Your task to perform on an android device: allow cookies in the chrome app Image 0: 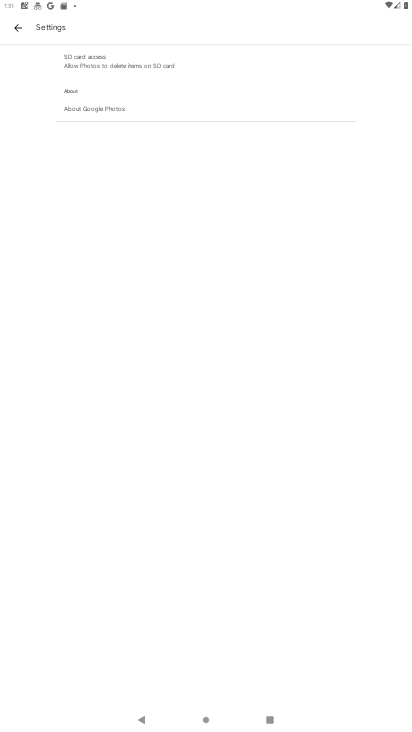
Step 0: press home button
Your task to perform on an android device: allow cookies in the chrome app Image 1: 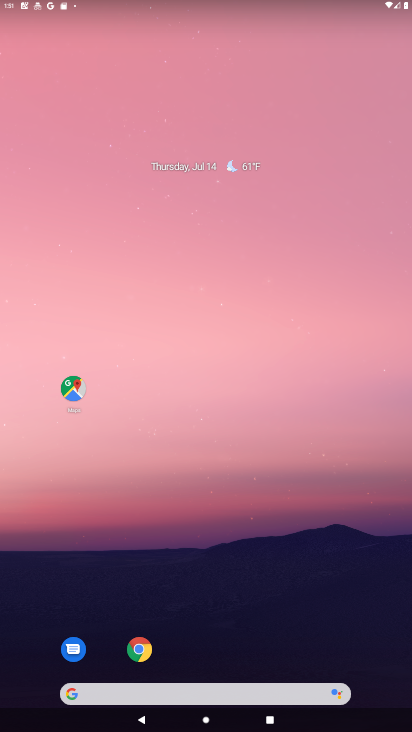
Step 1: drag from (229, 715) to (266, 115)
Your task to perform on an android device: allow cookies in the chrome app Image 2: 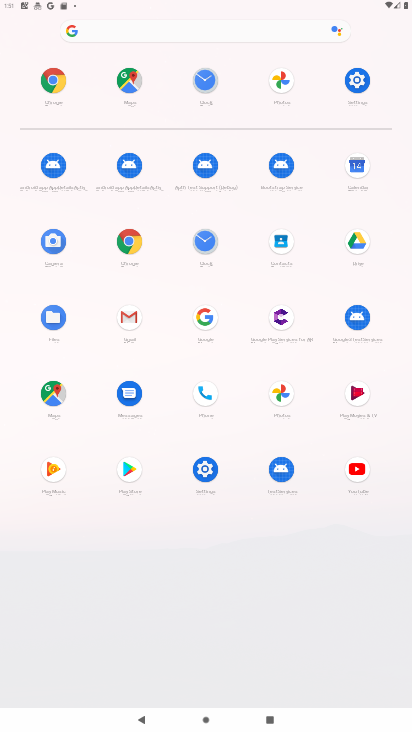
Step 2: click (119, 247)
Your task to perform on an android device: allow cookies in the chrome app Image 3: 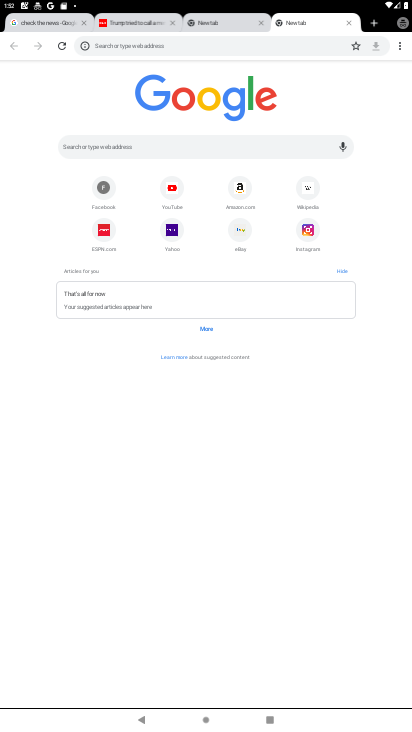
Step 3: drag from (392, 38) to (333, 211)
Your task to perform on an android device: allow cookies in the chrome app Image 4: 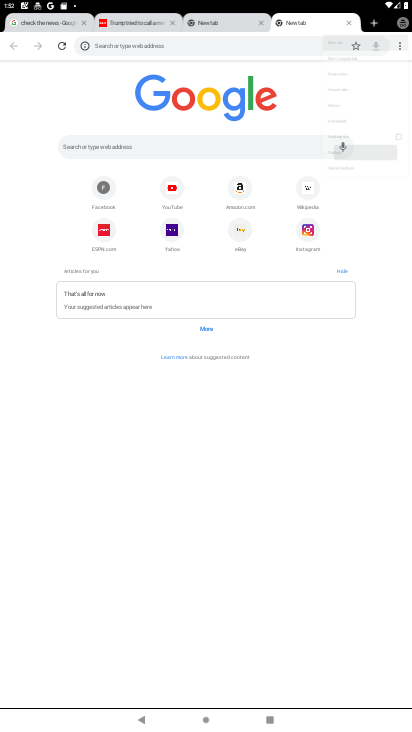
Step 4: click (333, 203)
Your task to perform on an android device: allow cookies in the chrome app Image 5: 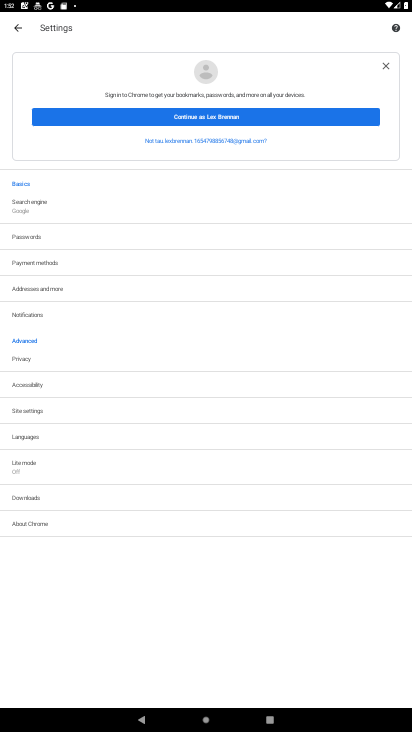
Step 5: click (43, 409)
Your task to perform on an android device: allow cookies in the chrome app Image 6: 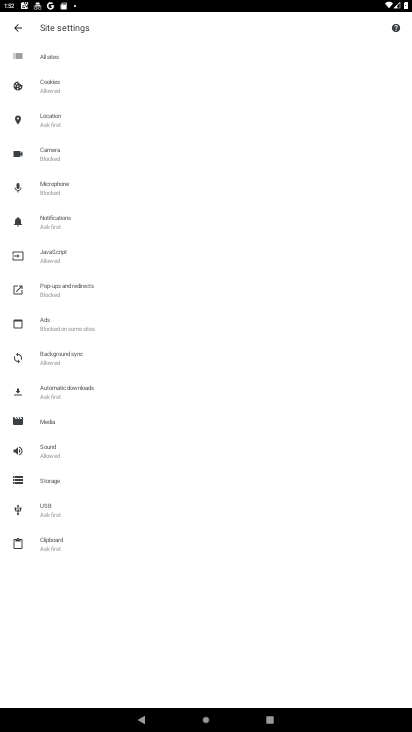
Step 6: click (73, 86)
Your task to perform on an android device: allow cookies in the chrome app Image 7: 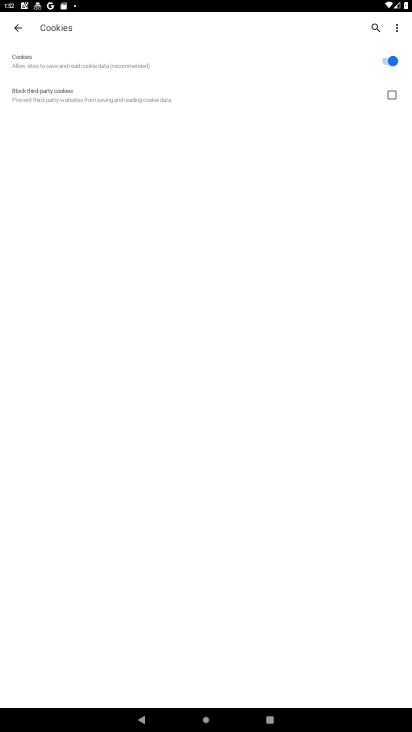
Step 7: task complete